Your task to perform on an android device: choose inbox layout in the gmail app Image 0: 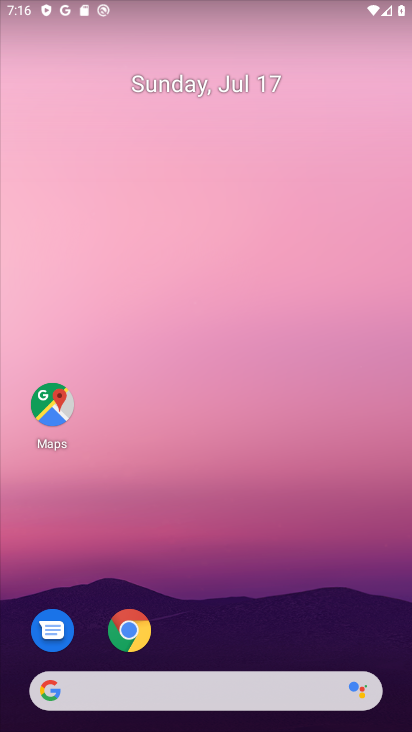
Step 0: drag from (215, 627) to (283, 12)
Your task to perform on an android device: choose inbox layout in the gmail app Image 1: 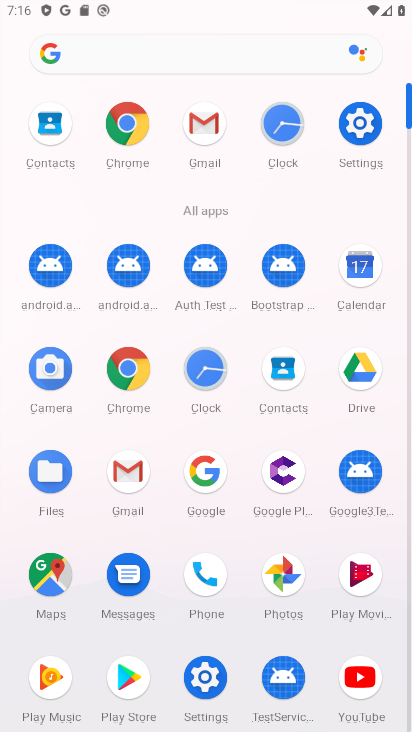
Step 1: click (196, 132)
Your task to perform on an android device: choose inbox layout in the gmail app Image 2: 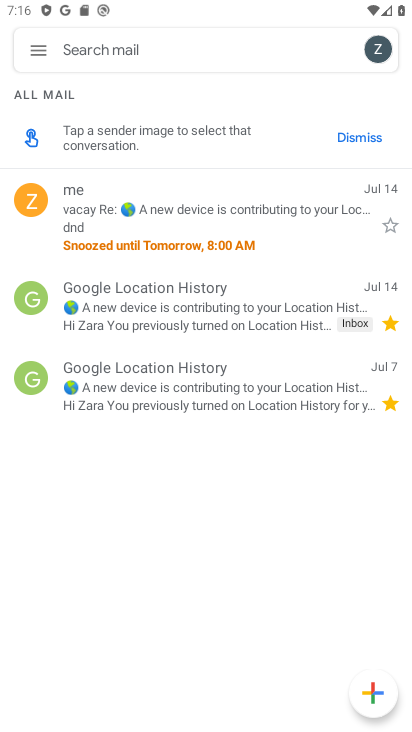
Step 2: click (32, 52)
Your task to perform on an android device: choose inbox layout in the gmail app Image 3: 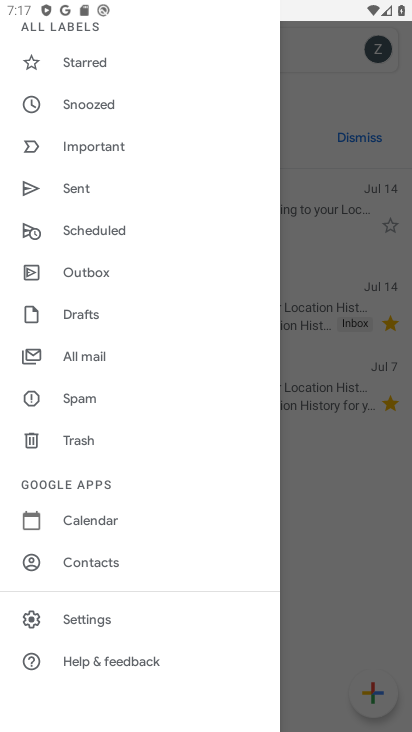
Step 3: click (80, 619)
Your task to perform on an android device: choose inbox layout in the gmail app Image 4: 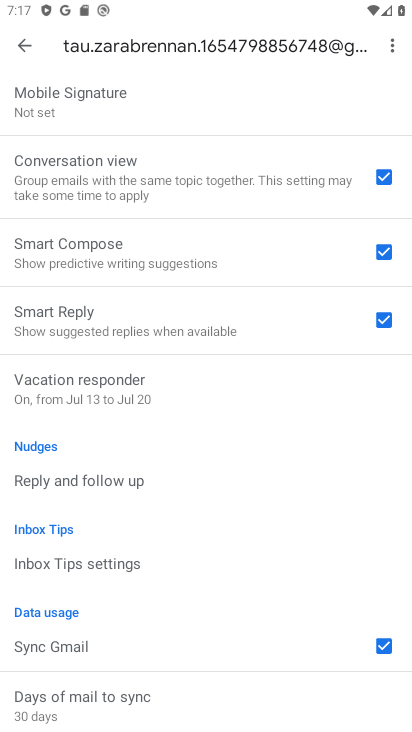
Step 4: drag from (138, 270) to (160, 473)
Your task to perform on an android device: choose inbox layout in the gmail app Image 5: 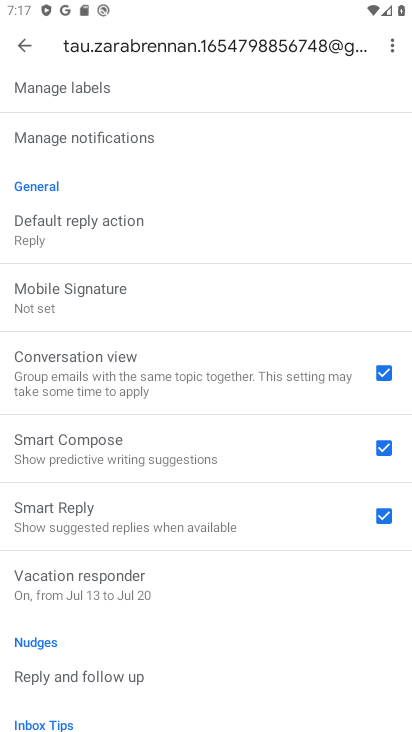
Step 5: drag from (178, 209) to (174, 545)
Your task to perform on an android device: choose inbox layout in the gmail app Image 6: 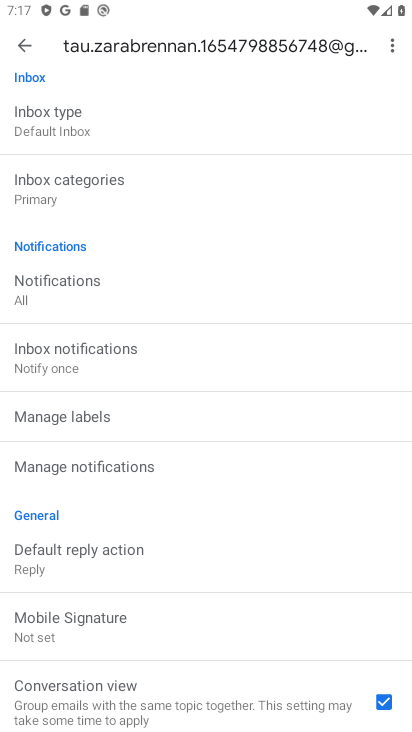
Step 6: click (79, 122)
Your task to perform on an android device: choose inbox layout in the gmail app Image 7: 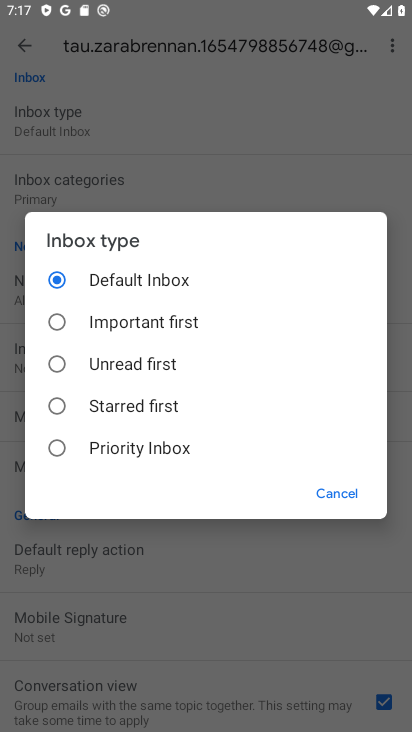
Step 7: click (58, 455)
Your task to perform on an android device: choose inbox layout in the gmail app Image 8: 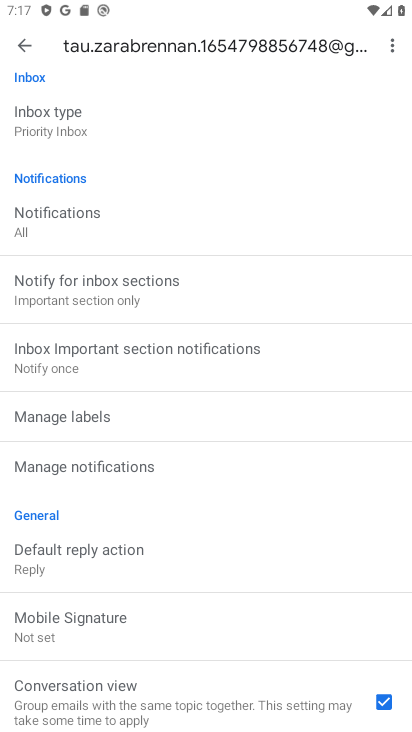
Step 8: task complete